Your task to perform on an android device: Go to internet settings Image 0: 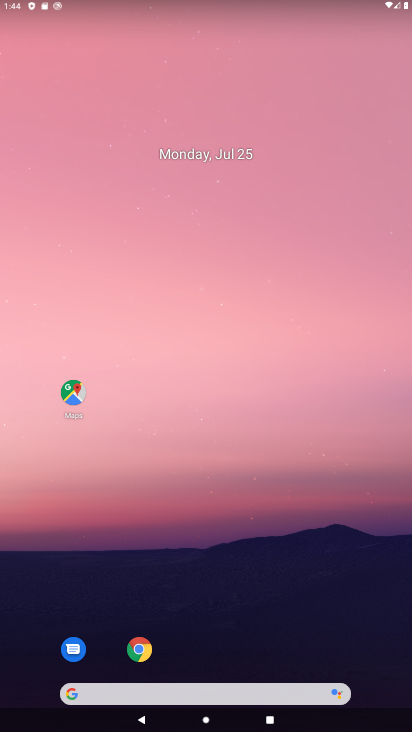
Step 0: drag from (244, 713) to (259, 13)
Your task to perform on an android device: Go to internet settings Image 1: 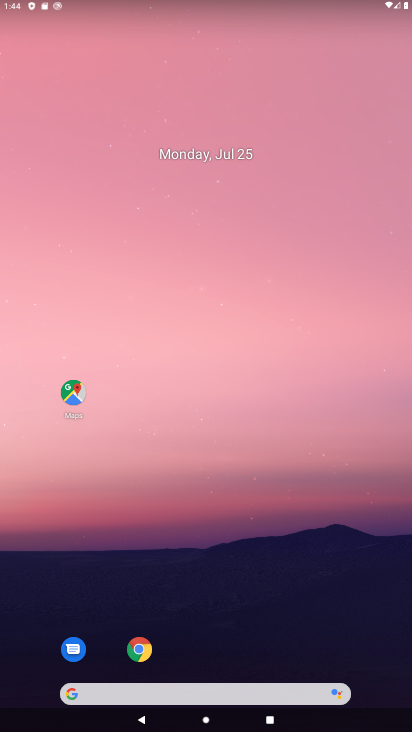
Step 1: drag from (229, 719) to (288, 0)
Your task to perform on an android device: Go to internet settings Image 2: 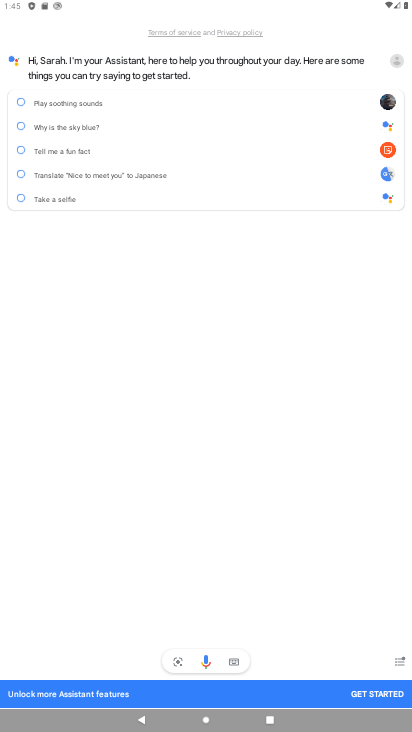
Step 2: press home button
Your task to perform on an android device: Go to internet settings Image 3: 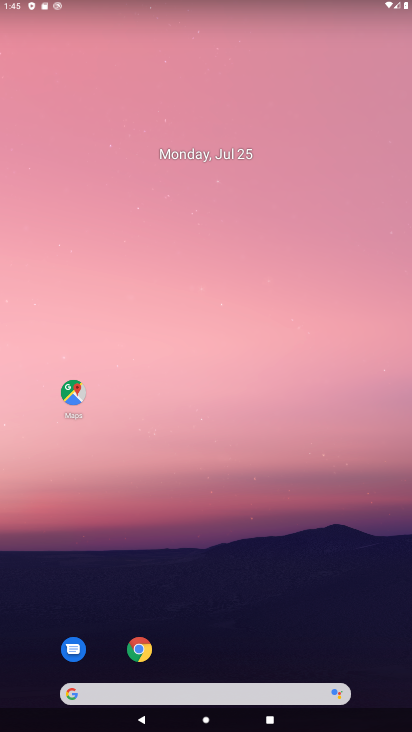
Step 3: drag from (165, 673) to (336, 0)
Your task to perform on an android device: Go to internet settings Image 4: 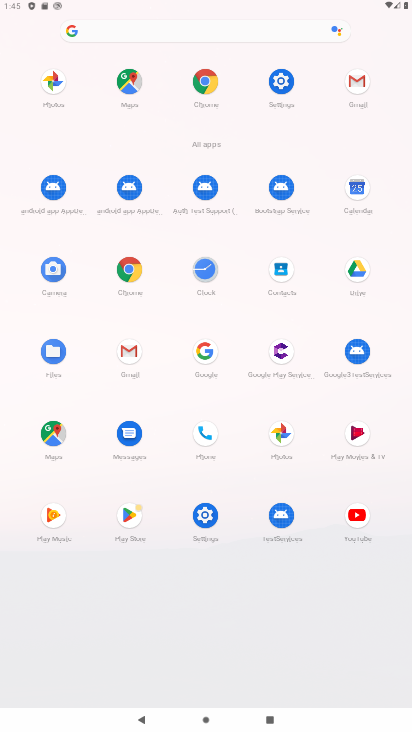
Step 4: click (280, 91)
Your task to perform on an android device: Go to internet settings Image 5: 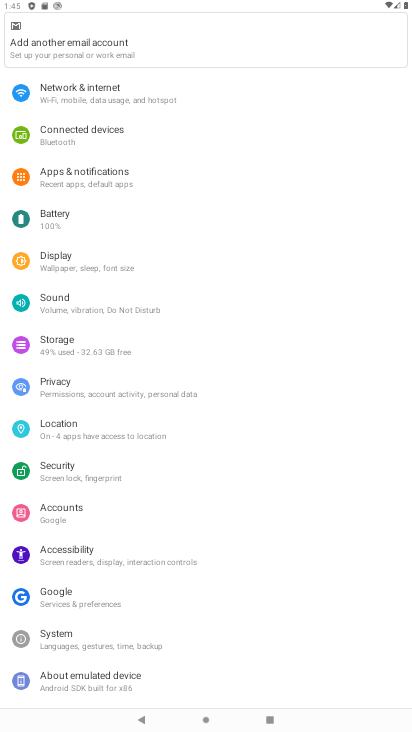
Step 5: click (138, 95)
Your task to perform on an android device: Go to internet settings Image 6: 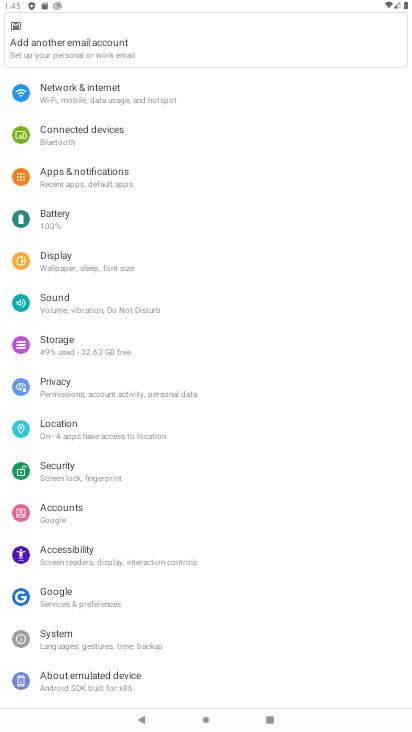
Step 6: click (138, 95)
Your task to perform on an android device: Go to internet settings Image 7: 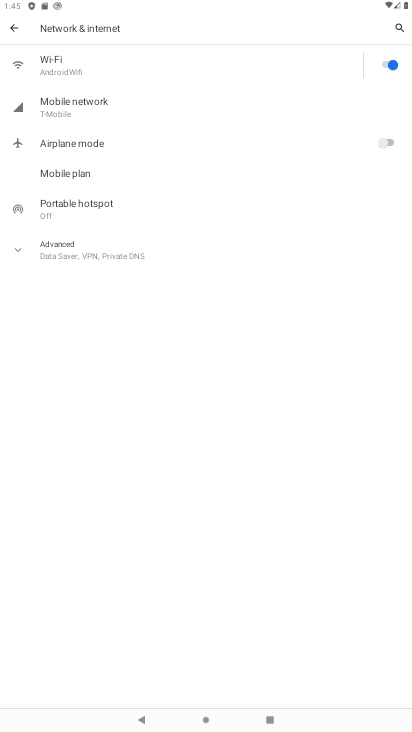
Step 7: task complete